Your task to perform on an android device: change the clock display to show seconds Image 0: 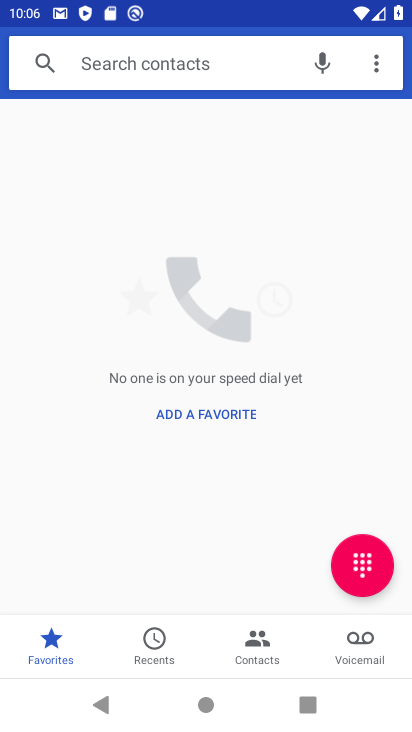
Step 0: press home button
Your task to perform on an android device: change the clock display to show seconds Image 1: 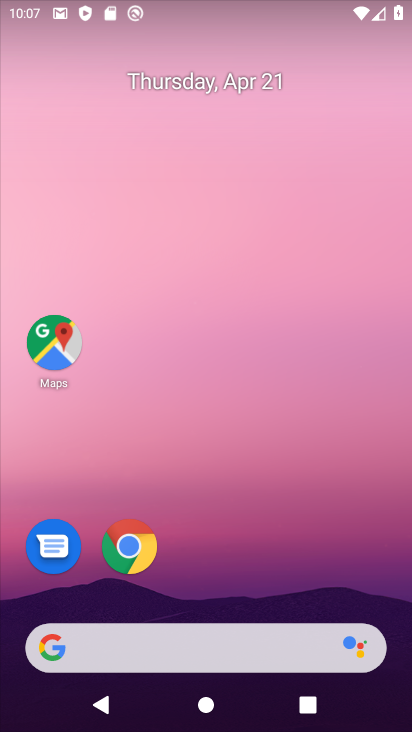
Step 1: drag from (238, 680) to (209, 275)
Your task to perform on an android device: change the clock display to show seconds Image 2: 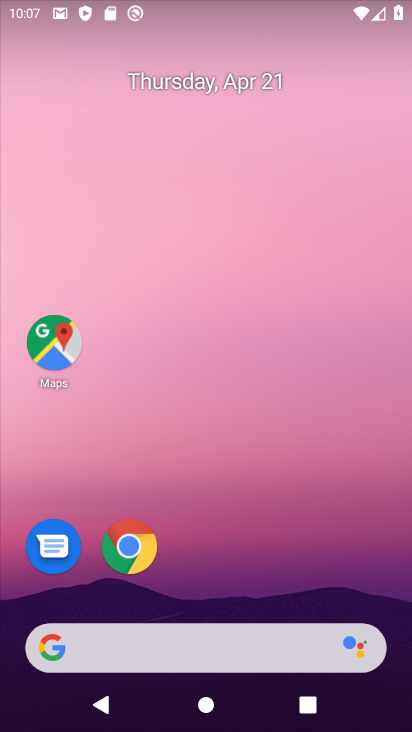
Step 2: drag from (235, 681) to (230, 173)
Your task to perform on an android device: change the clock display to show seconds Image 3: 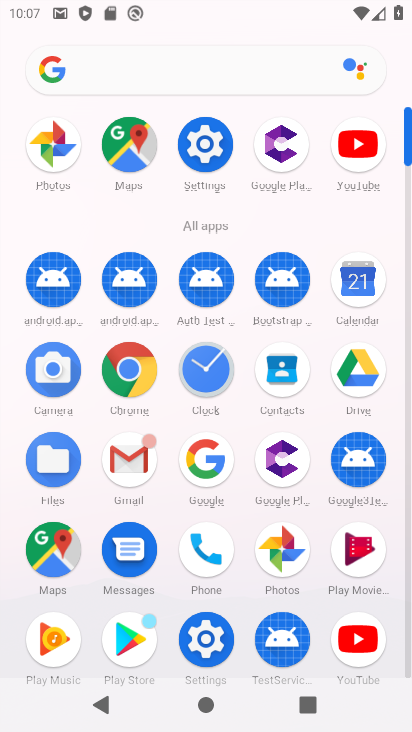
Step 3: click (197, 633)
Your task to perform on an android device: change the clock display to show seconds Image 4: 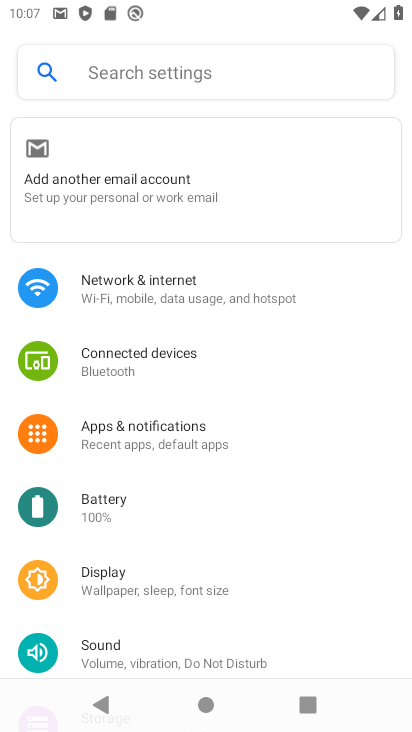
Step 4: click (117, 576)
Your task to perform on an android device: change the clock display to show seconds Image 5: 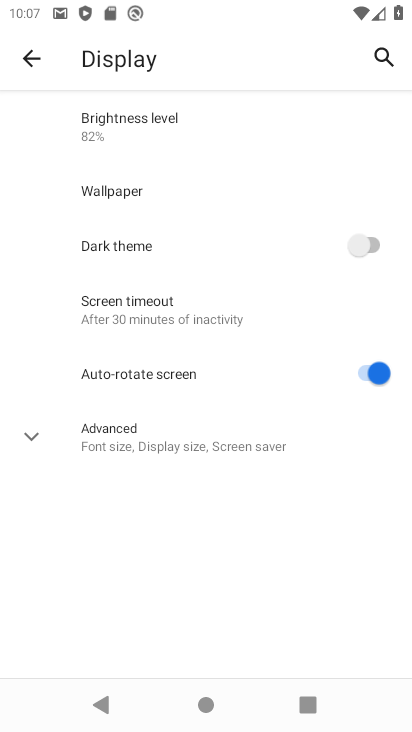
Step 5: press home button
Your task to perform on an android device: change the clock display to show seconds Image 6: 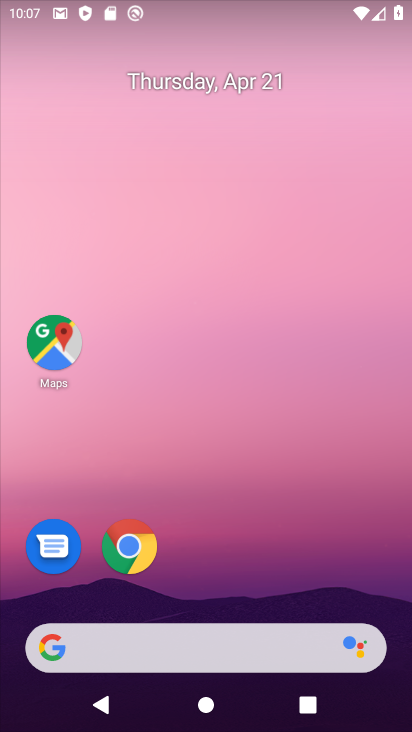
Step 6: drag from (258, 678) to (249, 140)
Your task to perform on an android device: change the clock display to show seconds Image 7: 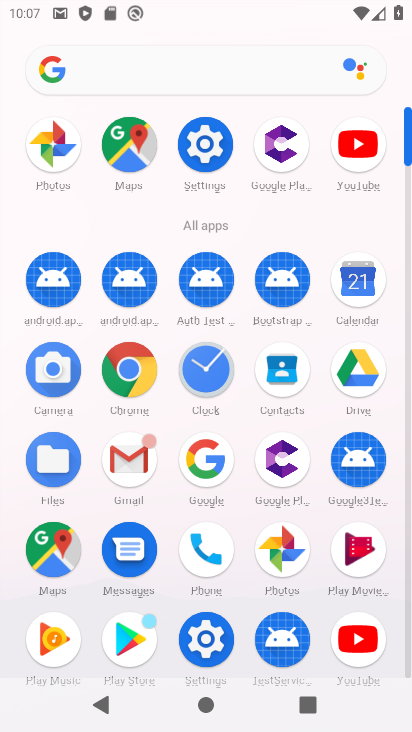
Step 7: click (214, 354)
Your task to perform on an android device: change the clock display to show seconds Image 8: 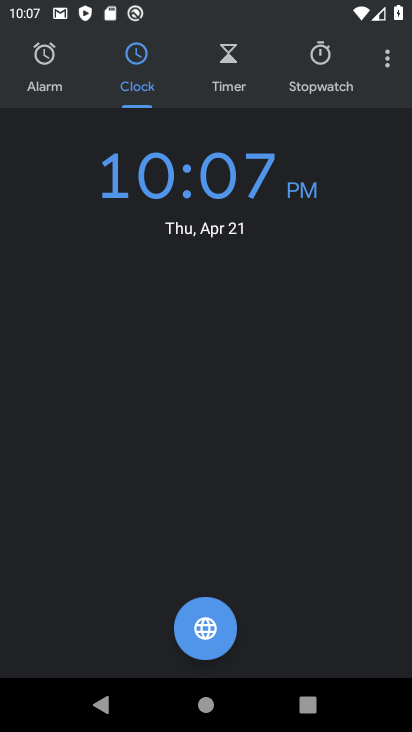
Step 8: click (379, 81)
Your task to perform on an android device: change the clock display to show seconds Image 9: 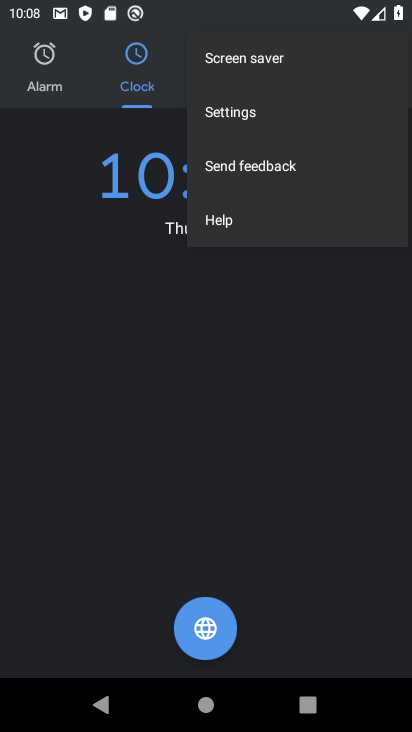
Step 9: click (245, 118)
Your task to perform on an android device: change the clock display to show seconds Image 10: 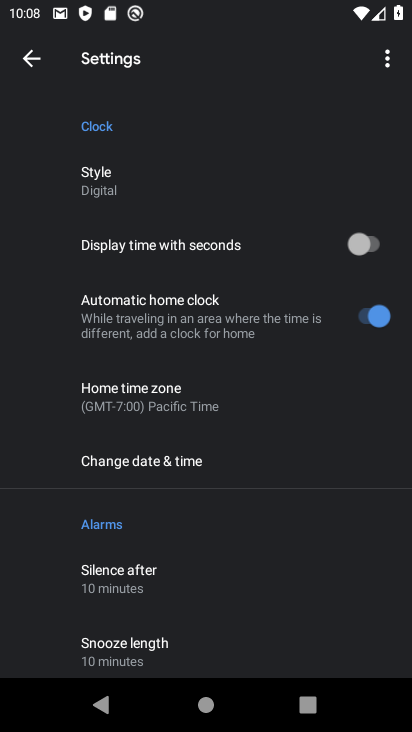
Step 10: click (256, 243)
Your task to perform on an android device: change the clock display to show seconds Image 11: 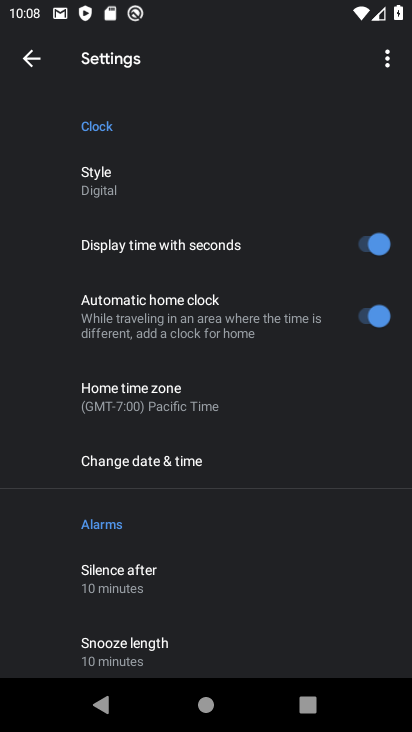
Step 11: task complete